Your task to perform on an android device: Open CNN.com Image 0: 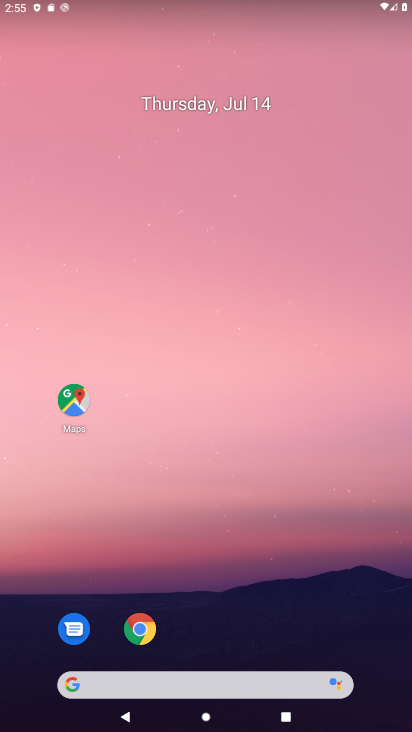
Step 0: click (139, 626)
Your task to perform on an android device: Open CNN.com Image 1: 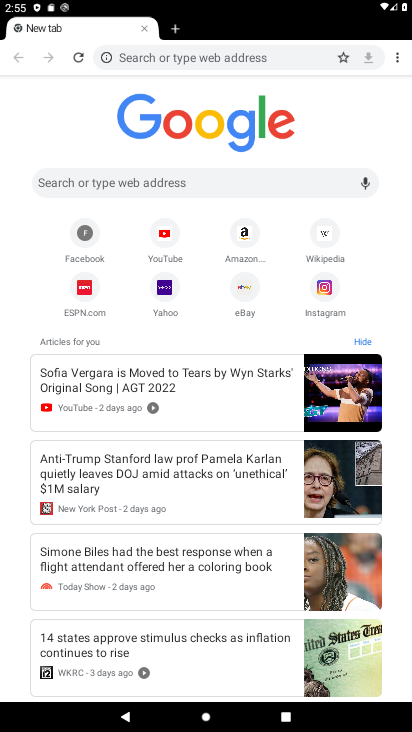
Step 1: click (168, 178)
Your task to perform on an android device: Open CNN.com Image 2: 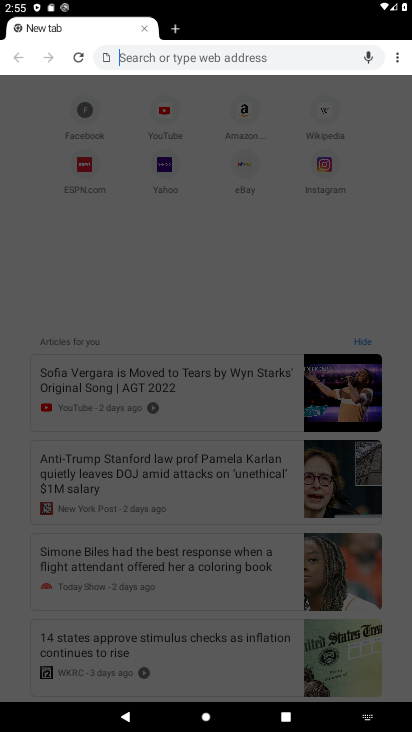
Step 2: type "cnn.com"
Your task to perform on an android device: Open CNN.com Image 3: 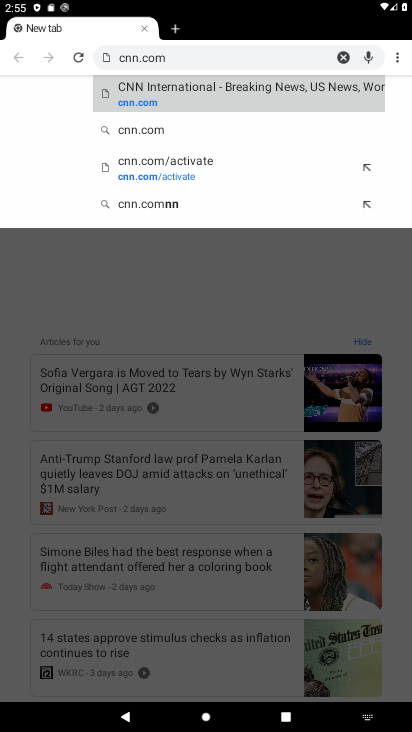
Step 3: click (156, 93)
Your task to perform on an android device: Open CNN.com Image 4: 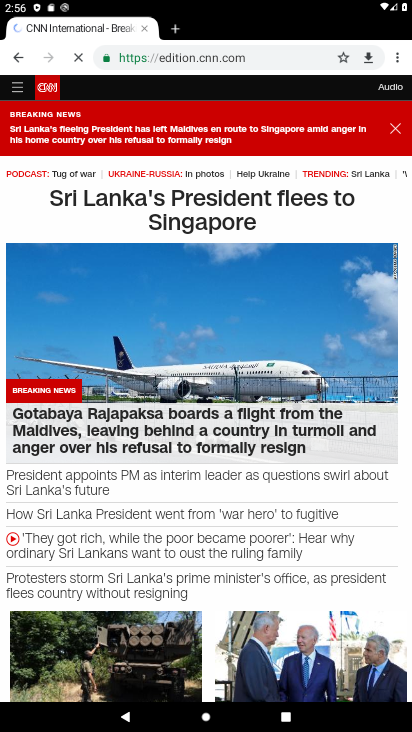
Step 4: drag from (200, 594) to (192, 170)
Your task to perform on an android device: Open CNN.com Image 5: 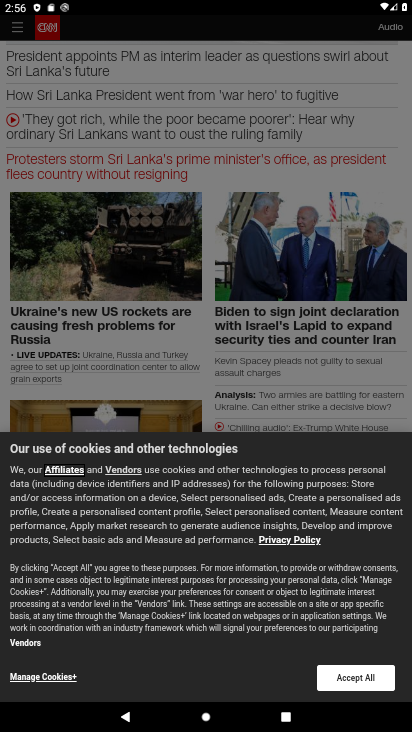
Step 5: click (351, 678)
Your task to perform on an android device: Open CNN.com Image 6: 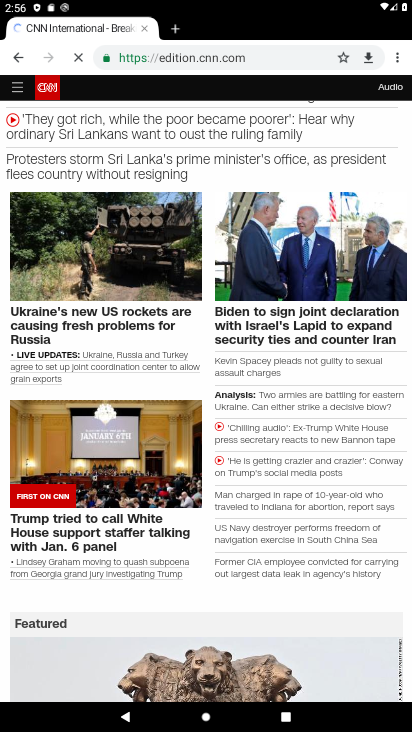
Step 6: task complete